Your task to perform on an android device: add a contact in the contacts app Image 0: 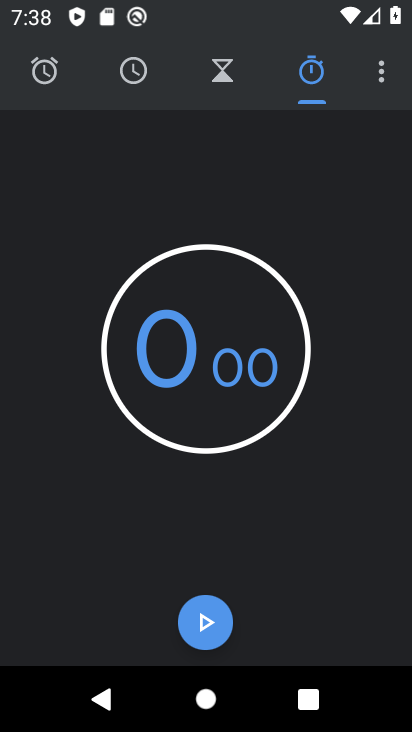
Step 0: press home button
Your task to perform on an android device: add a contact in the contacts app Image 1: 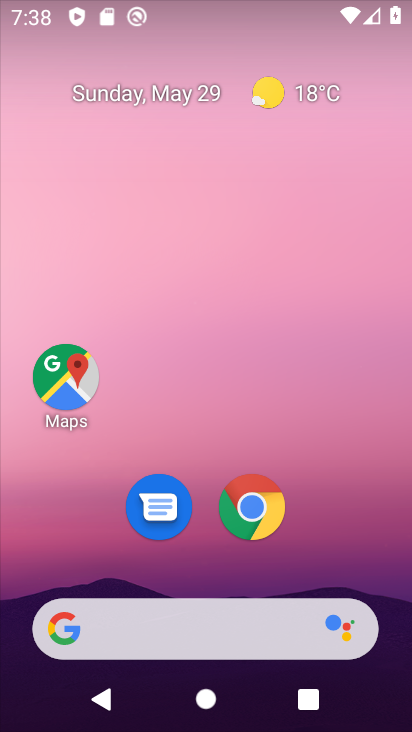
Step 1: drag from (328, 549) to (197, 139)
Your task to perform on an android device: add a contact in the contacts app Image 2: 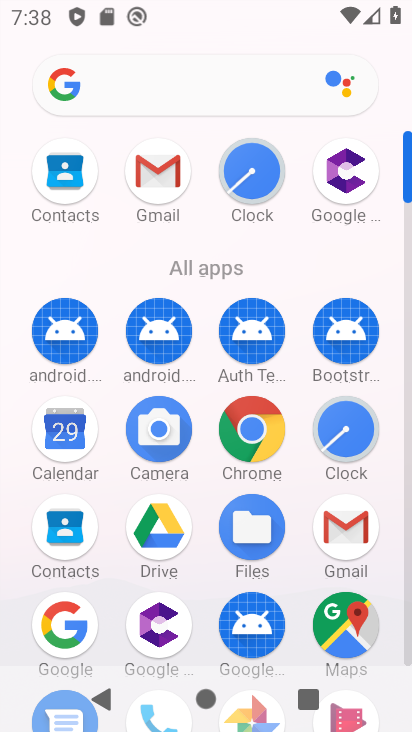
Step 2: click (71, 171)
Your task to perform on an android device: add a contact in the contacts app Image 3: 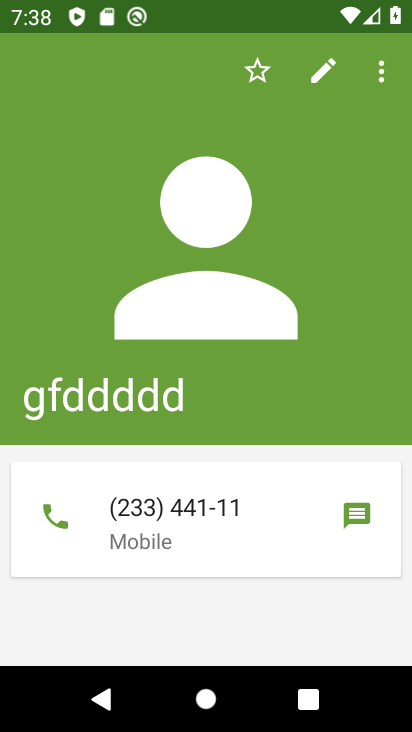
Step 3: press back button
Your task to perform on an android device: add a contact in the contacts app Image 4: 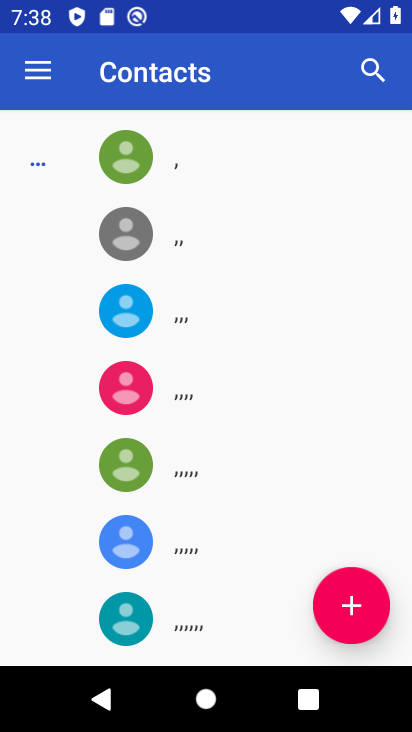
Step 4: click (347, 598)
Your task to perform on an android device: add a contact in the contacts app Image 5: 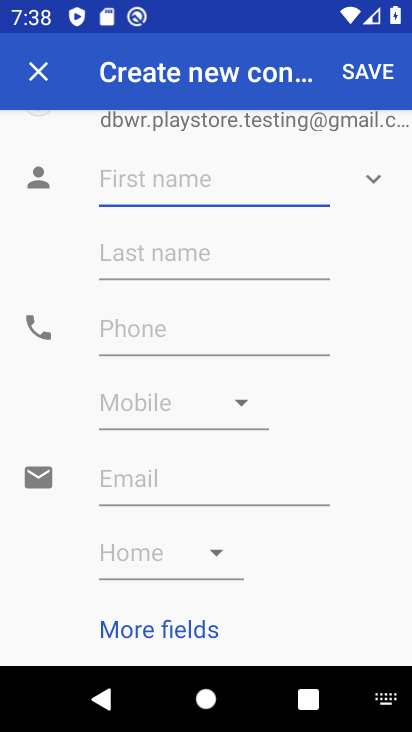
Step 5: type "kkgffss"
Your task to perform on an android device: add a contact in the contacts app Image 6: 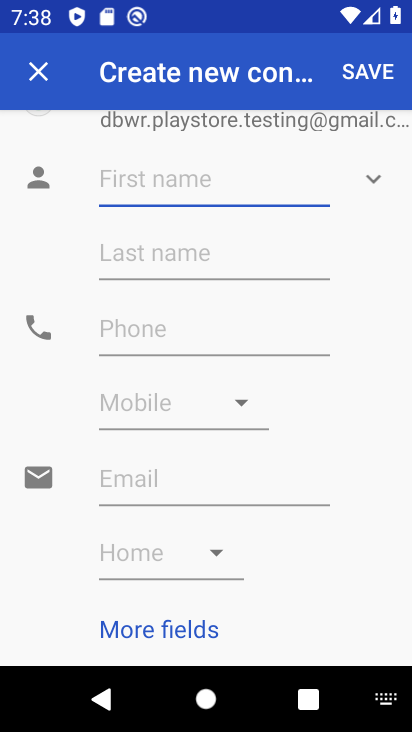
Step 6: click (178, 179)
Your task to perform on an android device: add a contact in the contacts app Image 7: 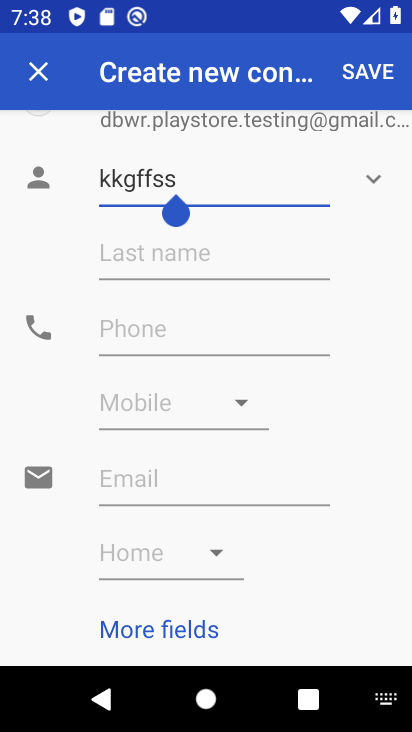
Step 7: click (151, 331)
Your task to perform on an android device: add a contact in the contacts app Image 8: 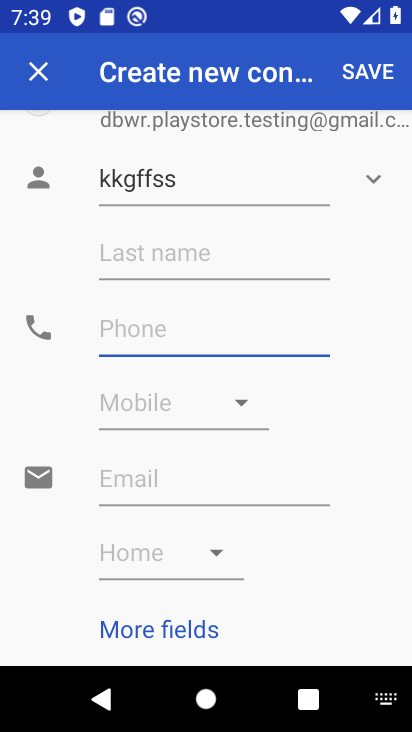
Step 8: type "353344551"
Your task to perform on an android device: add a contact in the contacts app Image 9: 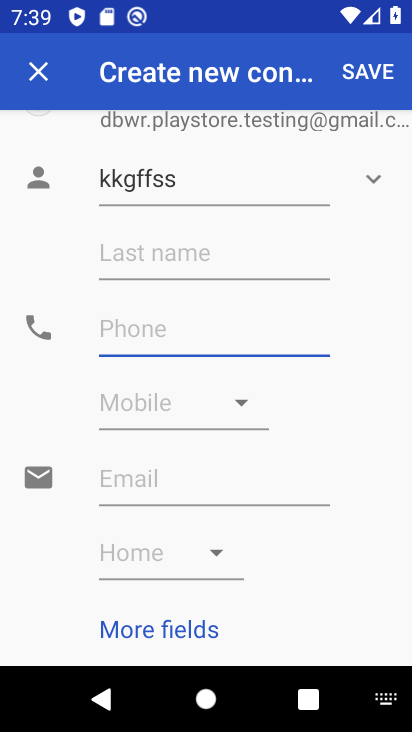
Step 9: click (201, 334)
Your task to perform on an android device: add a contact in the contacts app Image 10: 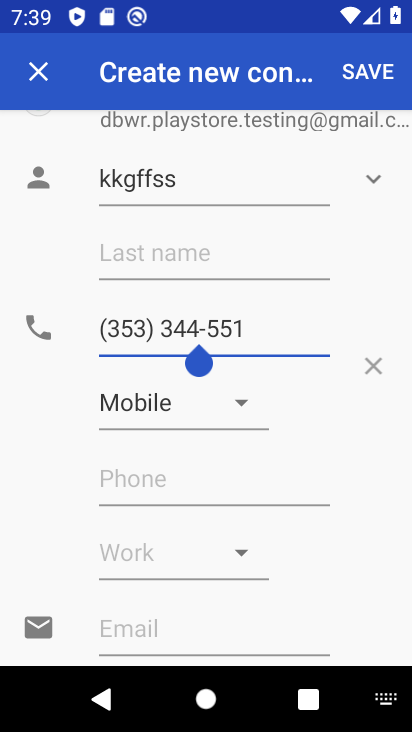
Step 10: click (362, 69)
Your task to perform on an android device: add a contact in the contacts app Image 11: 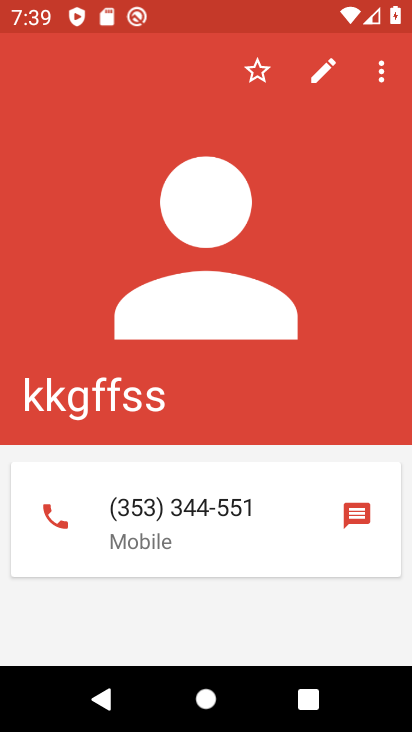
Step 11: task complete